Your task to perform on an android device: Open calendar and show me the third week of next month Image 0: 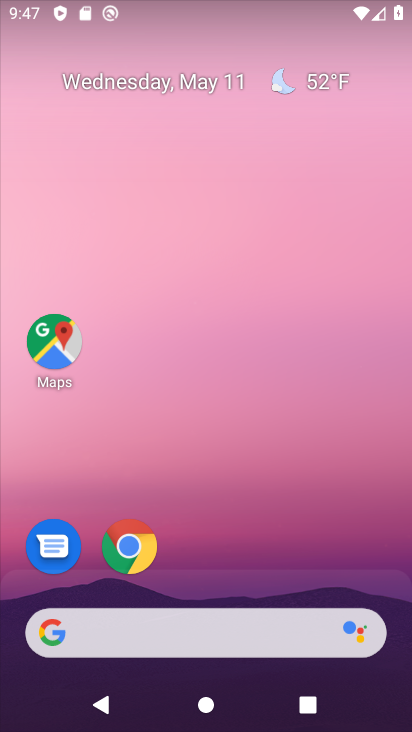
Step 0: drag from (160, 597) to (269, 176)
Your task to perform on an android device: Open calendar and show me the third week of next month Image 1: 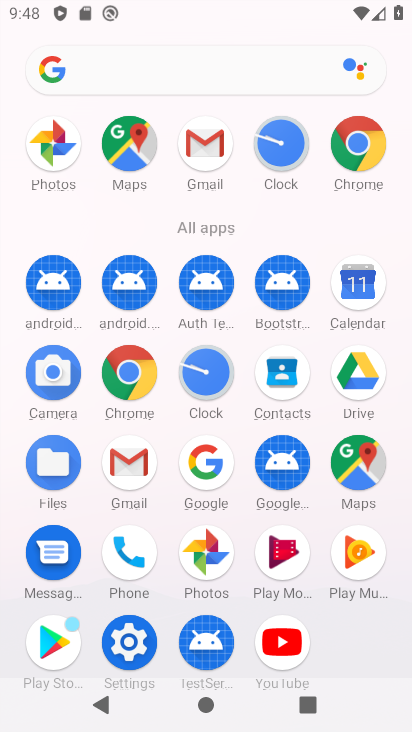
Step 1: click (340, 279)
Your task to perform on an android device: Open calendar and show me the third week of next month Image 2: 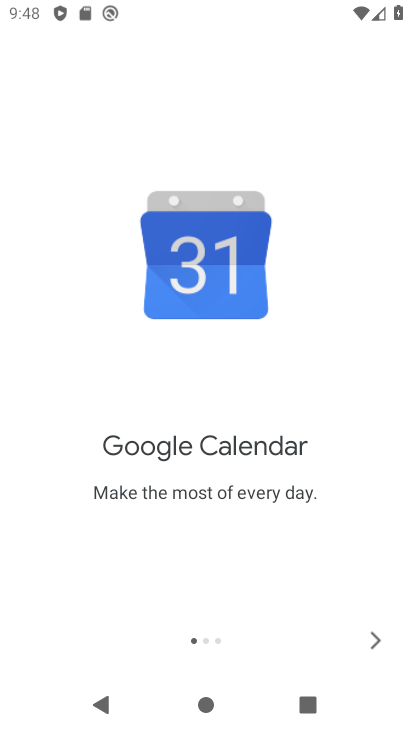
Step 2: click (381, 640)
Your task to perform on an android device: Open calendar and show me the third week of next month Image 3: 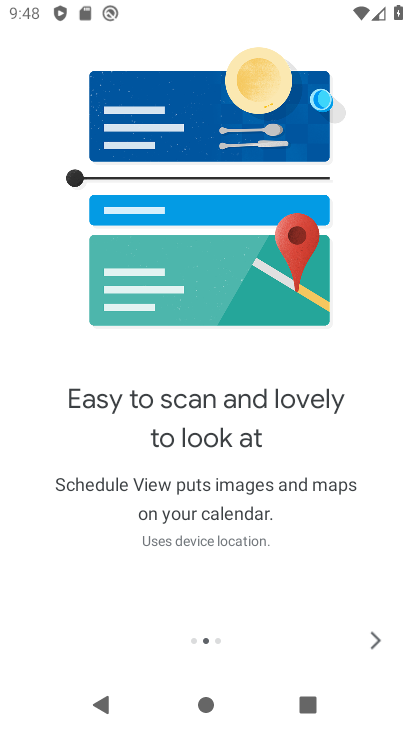
Step 3: click (381, 640)
Your task to perform on an android device: Open calendar and show me the third week of next month Image 4: 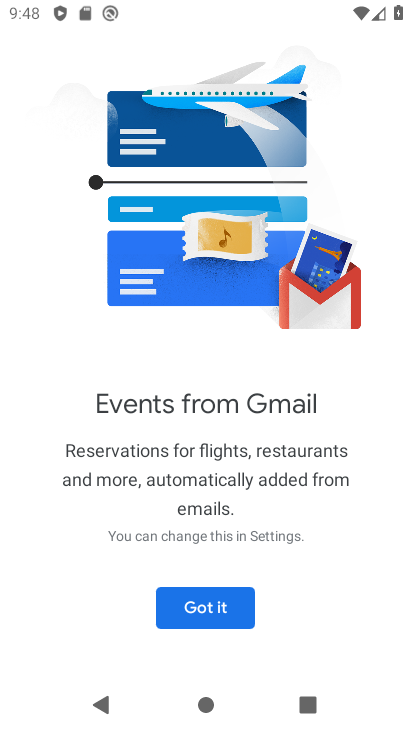
Step 4: click (204, 608)
Your task to perform on an android device: Open calendar and show me the third week of next month Image 5: 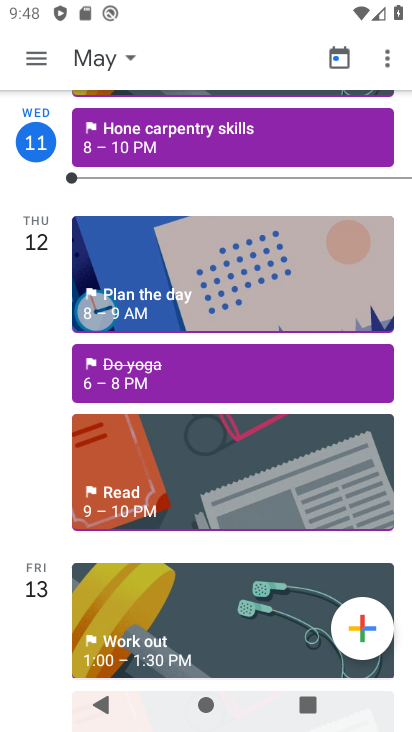
Step 5: click (91, 54)
Your task to perform on an android device: Open calendar and show me the third week of next month Image 6: 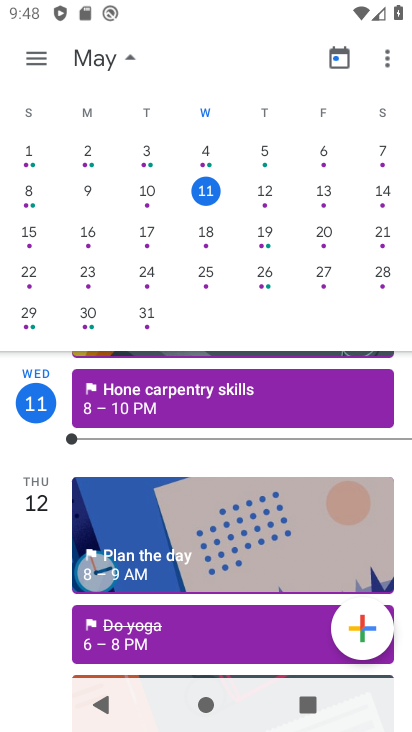
Step 6: drag from (340, 326) to (3, 262)
Your task to perform on an android device: Open calendar and show me the third week of next month Image 7: 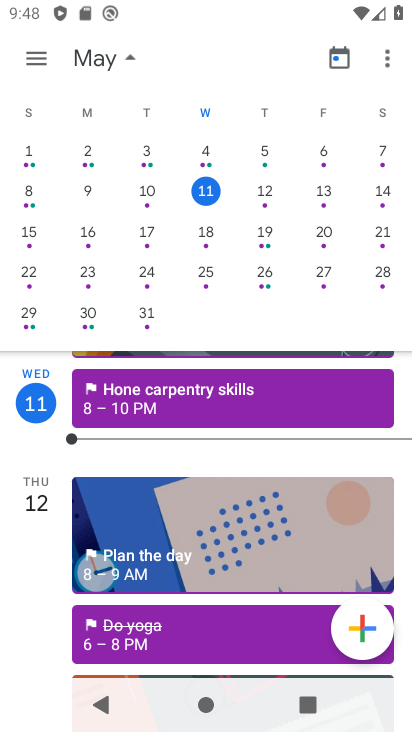
Step 7: drag from (380, 301) to (9, 278)
Your task to perform on an android device: Open calendar and show me the third week of next month Image 8: 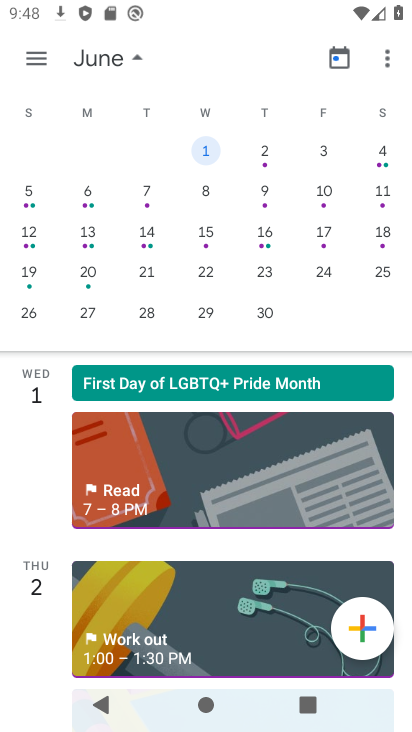
Step 8: click (29, 268)
Your task to perform on an android device: Open calendar and show me the third week of next month Image 9: 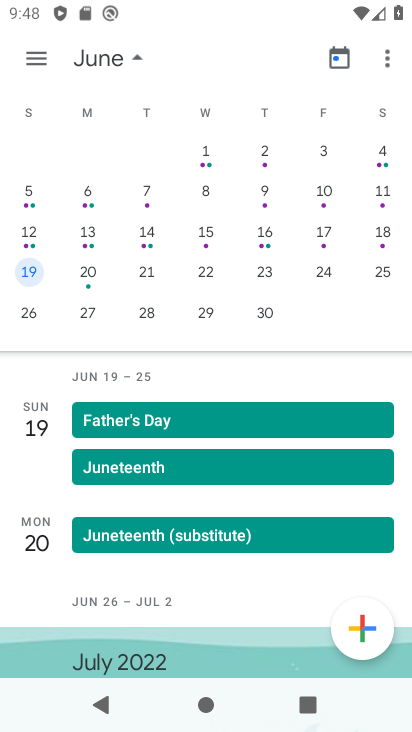
Step 9: click (42, 53)
Your task to perform on an android device: Open calendar and show me the third week of next month Image 10: 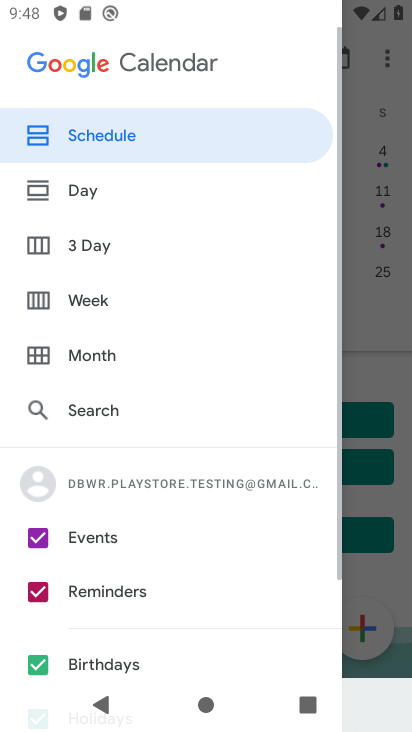
Step 10: click (107, 300)
Your task to perform on an android device: Open calendar and show me the third week of next month Image 11: 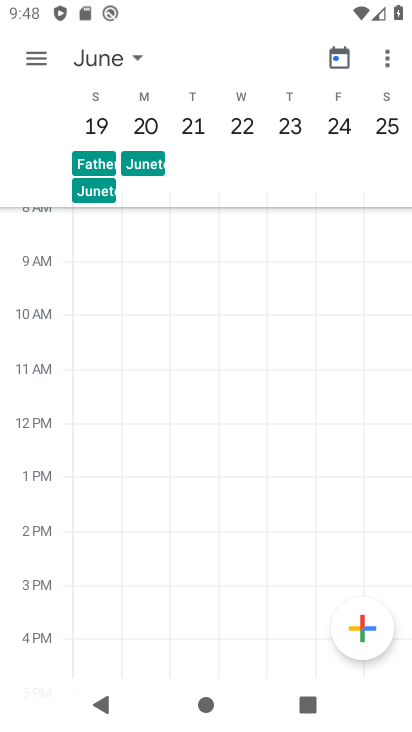
Step 11: task complete